Your task to perform on an android device: turn on the 24-hour format for clock Image 0: 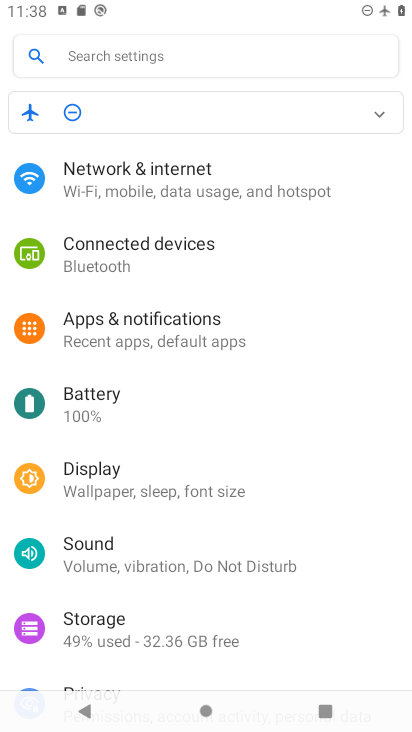
Step 0: press home button
Your task to perform on an android device: turn on the 24-hour format for clock Image 1: 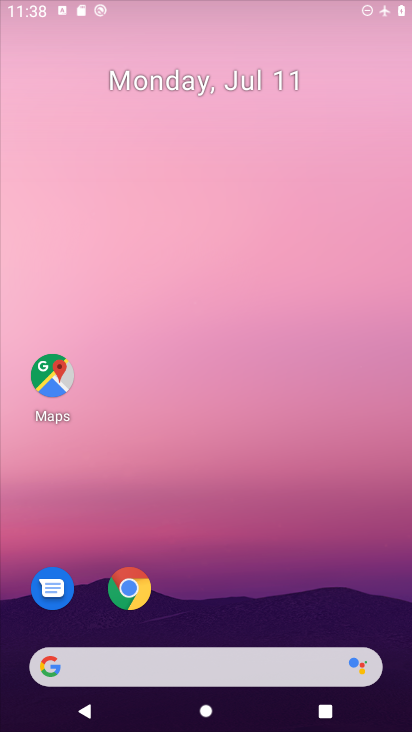
Step 1: drag from (375, 623) to (190, 28)
Your task to perform on an android device: turn on the 24-hour format for clock Image 2: 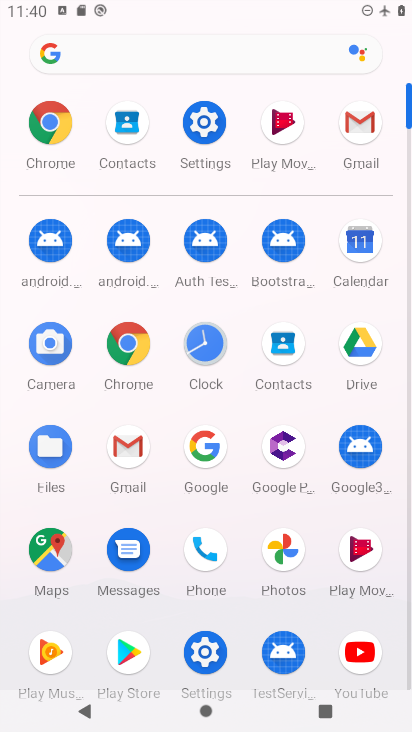
Step 2: click (204, 339)
Your task to perform on an android device: turn on the 24-hour format for clock Image 3: 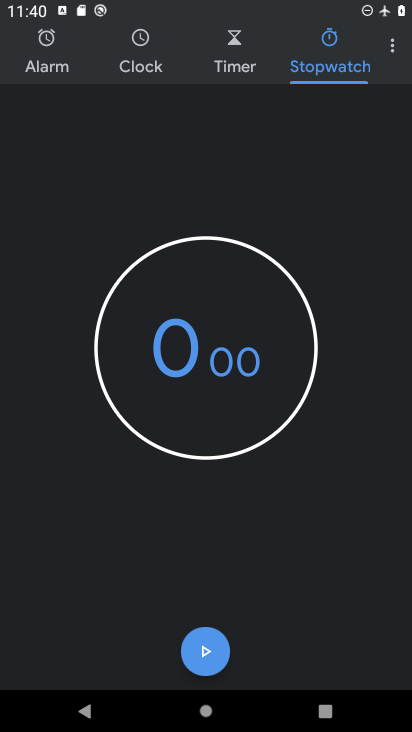
Step 3: click (394, 43)
Your task to perform on an android device: turn on the 24-hour format for clock Image 4: 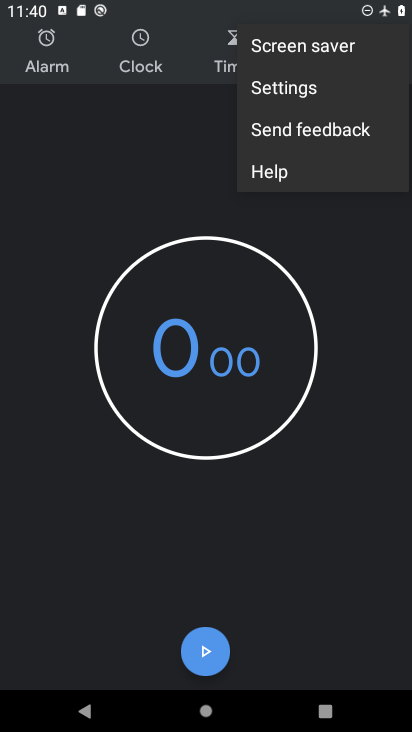
Step 4: click (290, 88)
Your task to perform on an android device: turn on the 24-hour format for clock Image 5: 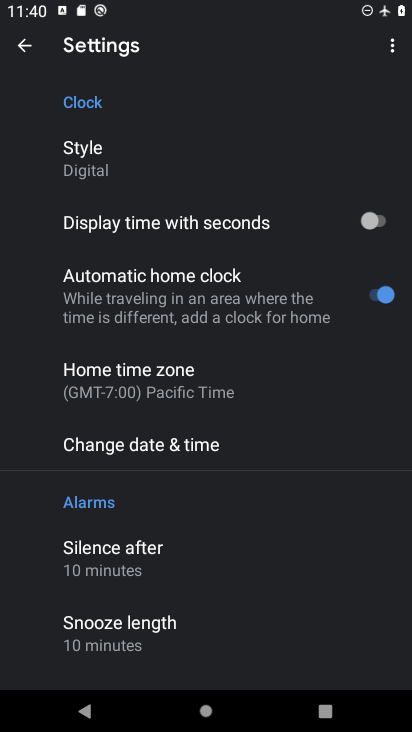
Step 5: click (130, 454)
Your task to perform on an android device: turn on the 24-hour format for clock Image 6: 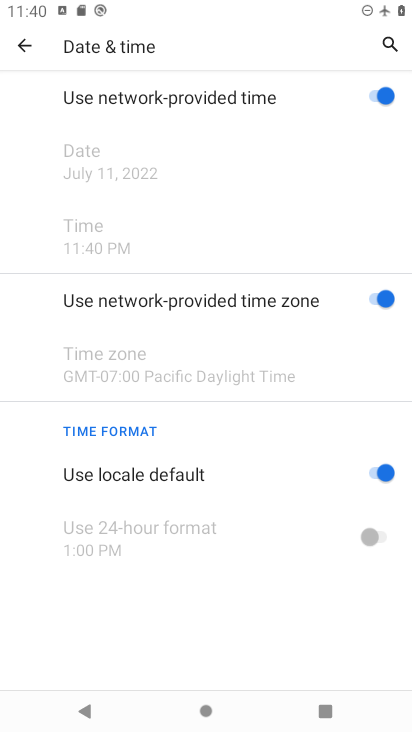
Step 6: task complete